Your task to perform on an android device: add a contact Image 0: 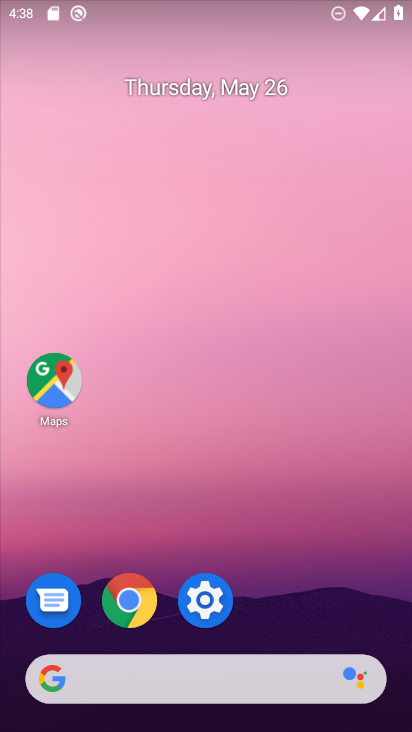
Step 0: drag from (288, 700) to (197, 100)
Your task to perform on an android device: add a contact Image 1: 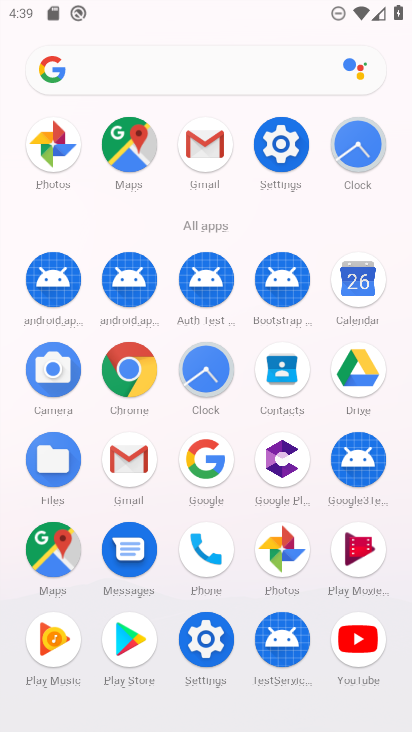
Step 1: click (278, 378)
Your task to perform on an android device: add a contact Image 2: 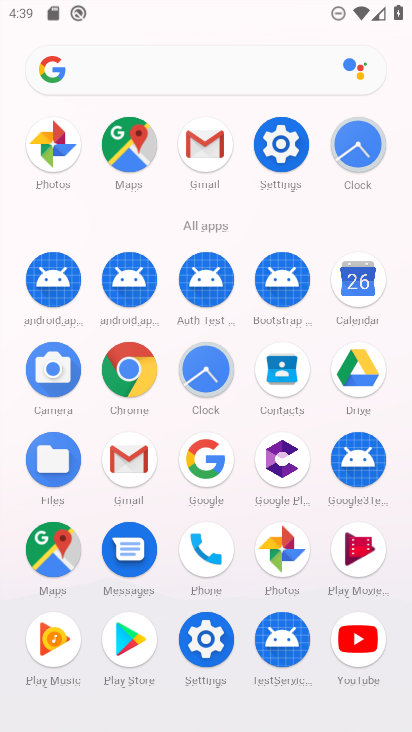
Step 2: click (278, 378)
Your task to perform on an android device: add a contact Image 3: 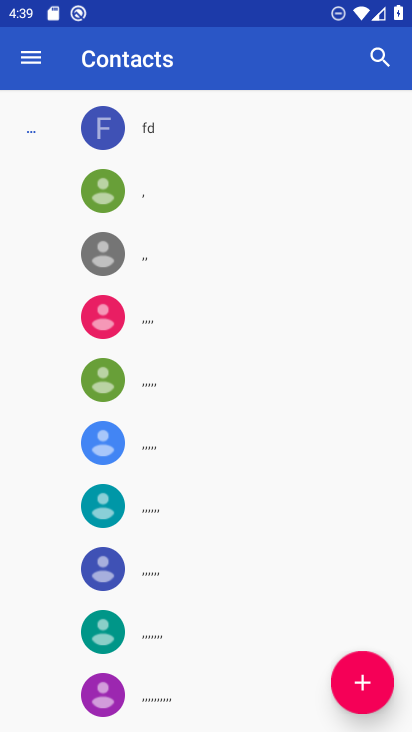
Step 3: click (363, 675)
Your task to perform on an android device: add a contact Image 4: 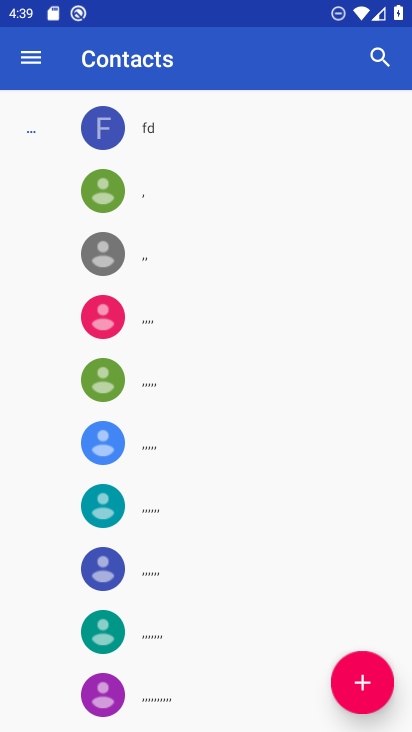
Step 4: click (362, 676)
Your task to perform on an android device: add a contact Image 5: 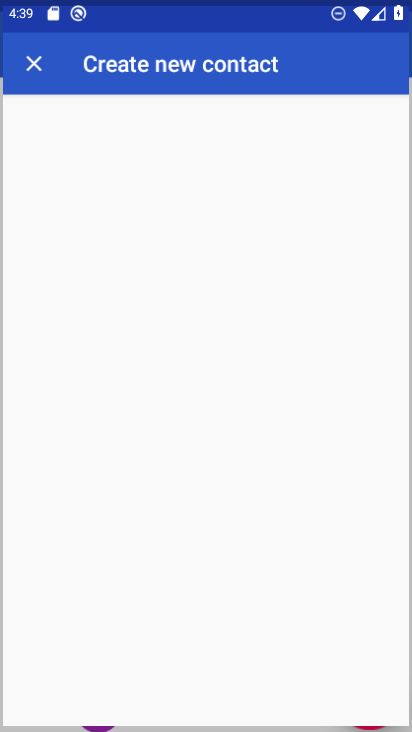
Step 5: click (362, 676)
Your task to perform on an android device: add a contact Image 6: 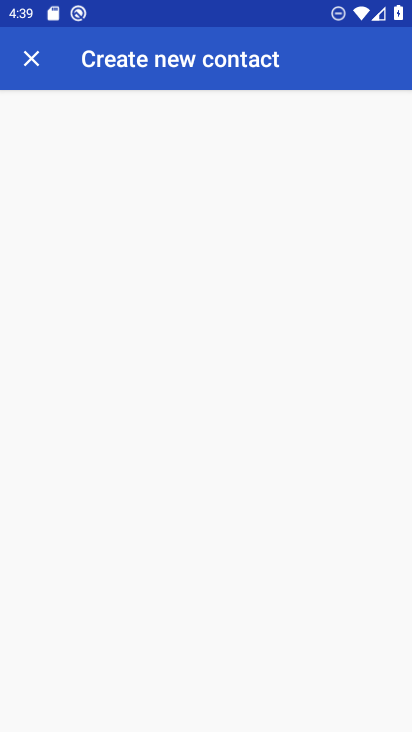
Step 6: click (362, 676)
Your task to perform on an android device: add a contact Image 7: 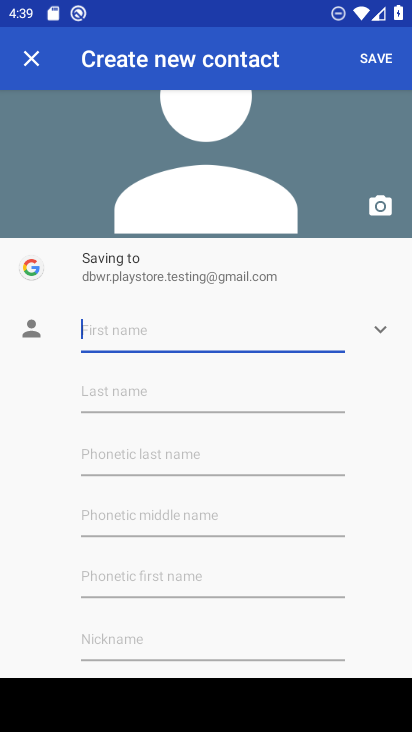
Step 7: type "jgsjhdkkhdk"
Your task to perform on an android device: add a contact Image 8: 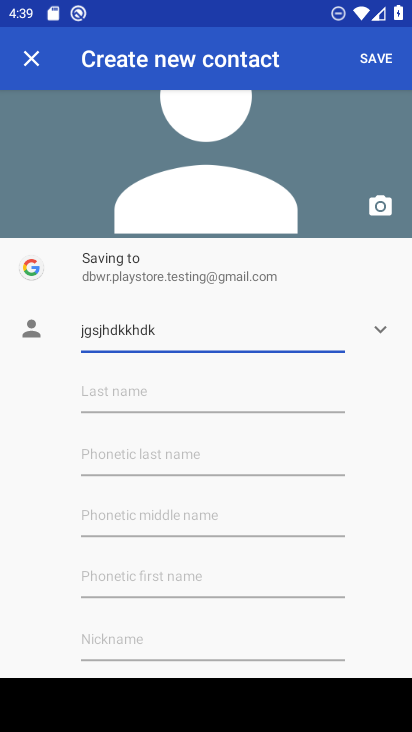
Step 8: click (114, 391)
Your task to perform on an android device: add a contact Image 9: 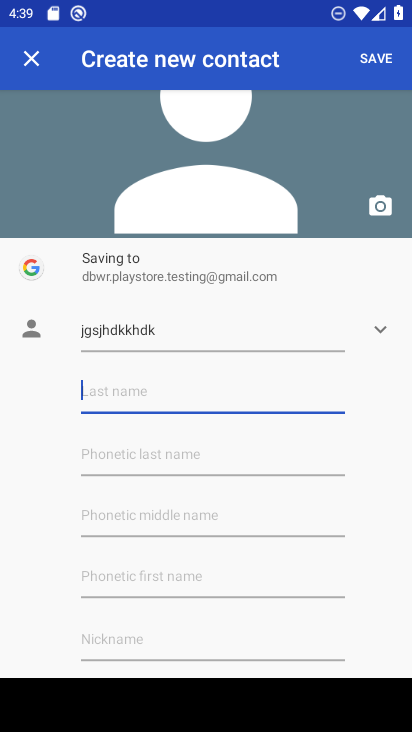
Step 9: click (104, 447)
Your task to perform on an android device: add a contact Image 10: 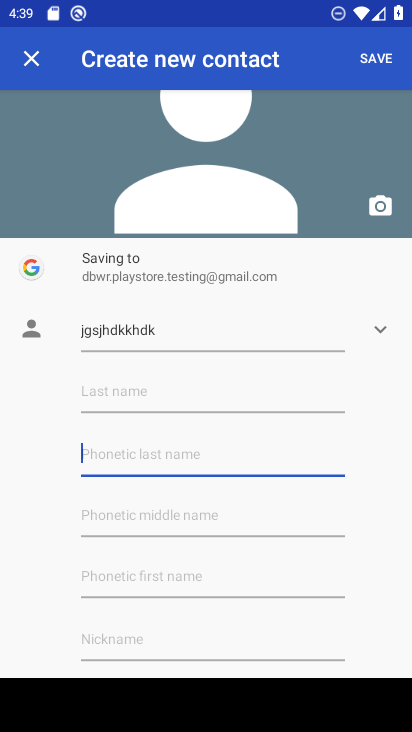
Step 10: type "76877879844"
Your task to perform on an android device: add a contact Image 11: 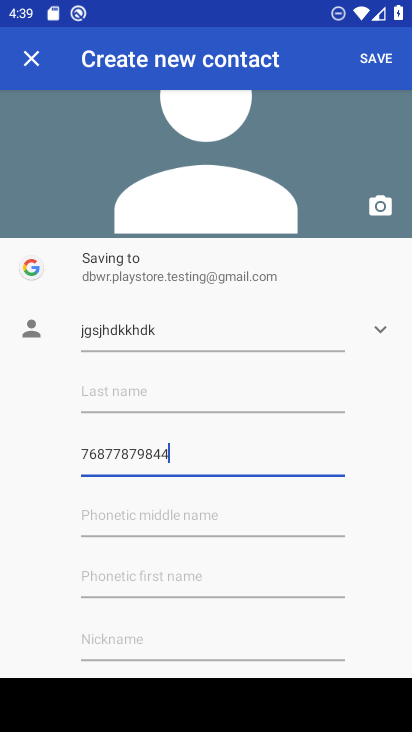
Step 11: click (366, 38)
Your task to perform on an android device: add a contact Image 12: 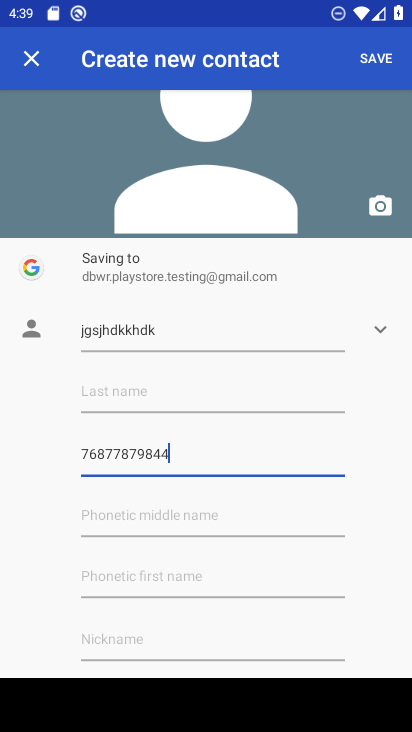
Step 12: click (374, 56)
Your task to perform on an android device: add a contact Image 13: 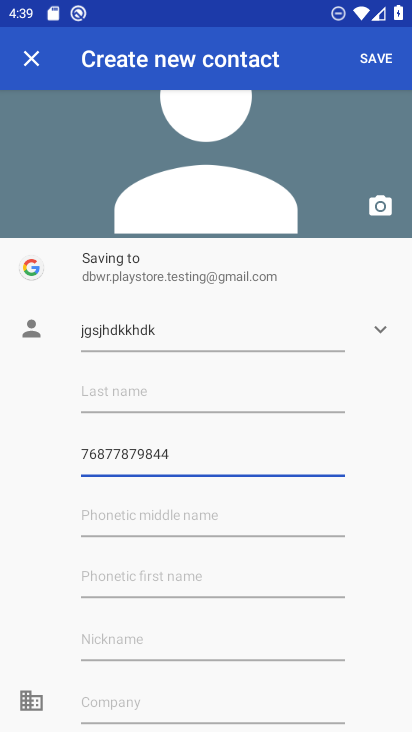
Step 13: click (375, 62)
Your task to perform on an android device: add a contact Image 14: 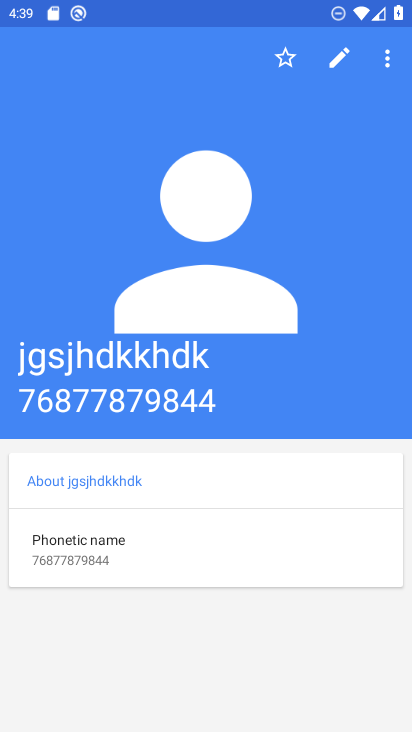
Step 14: task complete